Your task to perform on an android device: Go to network settings Image 0: 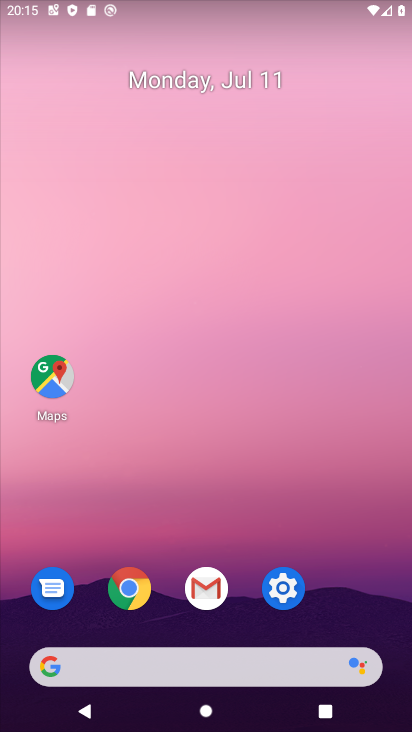
Step 0: click (275, 595)
Your task to perform on an android device: Go to network settings Image 1: 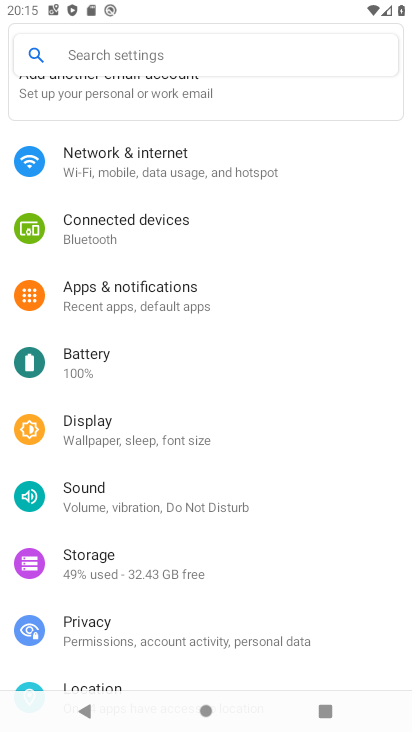
Step 1: click (124, 170)
Your task to perform on an android device: Go to network settings Image 2: 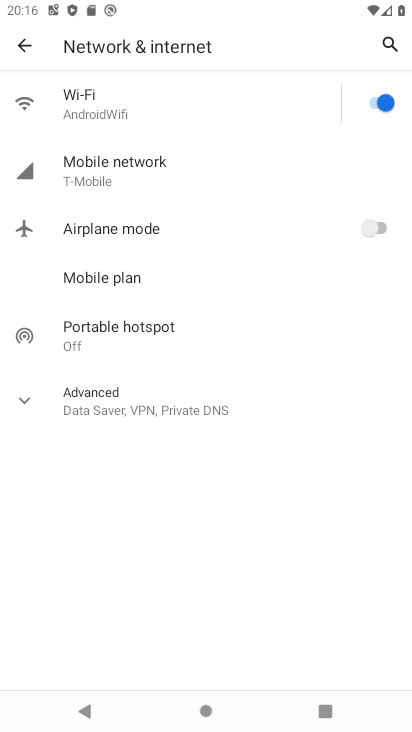
Step 2: task complete